Your task to perform on an android device: Open settings Image 0: 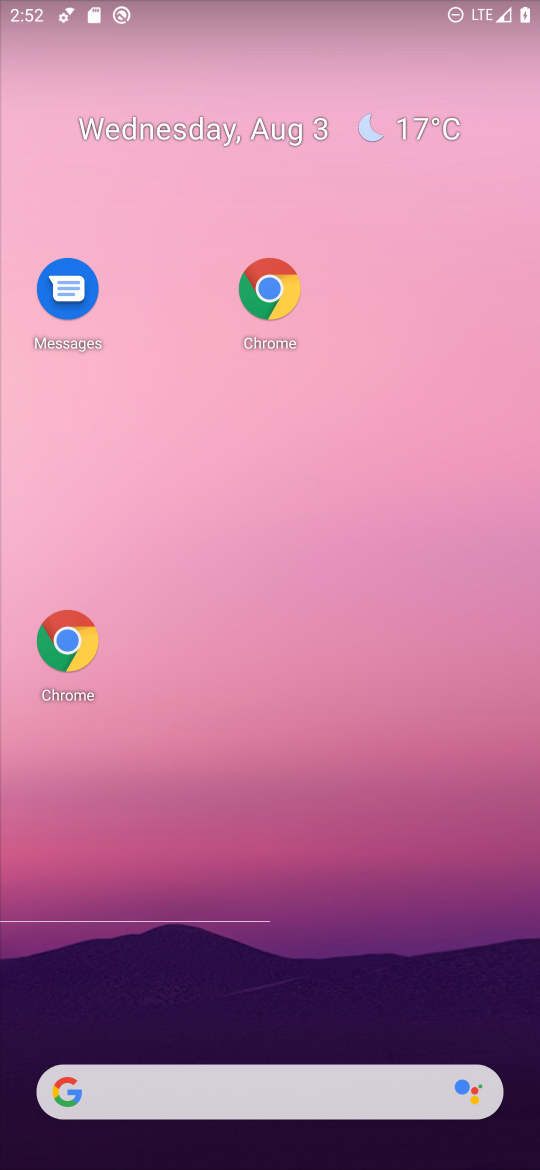
Step 0: drag from (325, 1028) to (415, 23)
Your task to perform on an android device: Open settings Image 1: 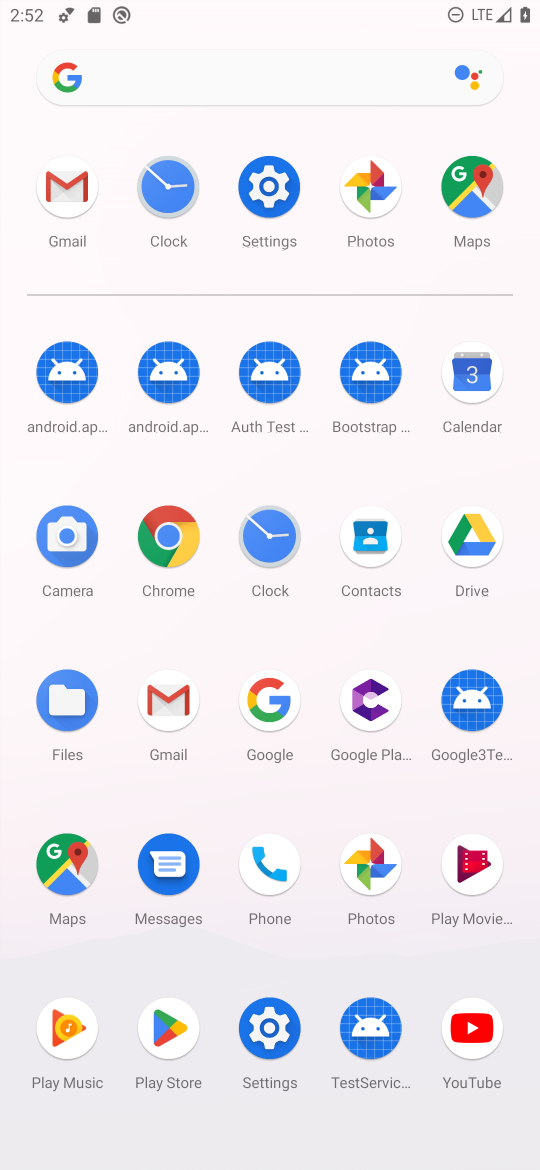
Step 1: click (295, 192)
Your task to perform on an android device: Open settings Image 2: 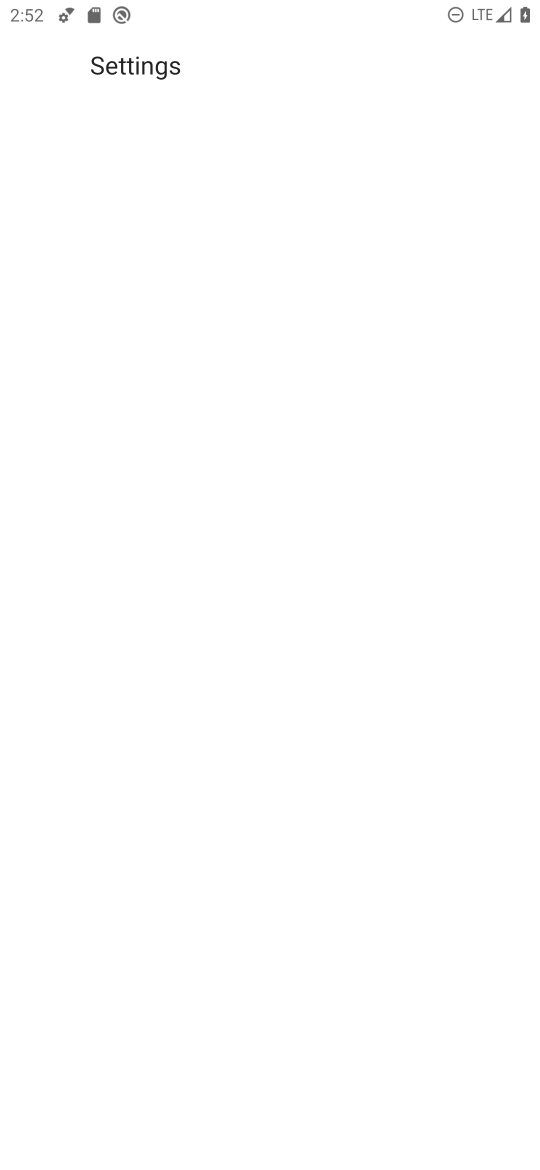
Step 2: task complete